Your task to perform on an android device: When is my next appointment? Image 0: 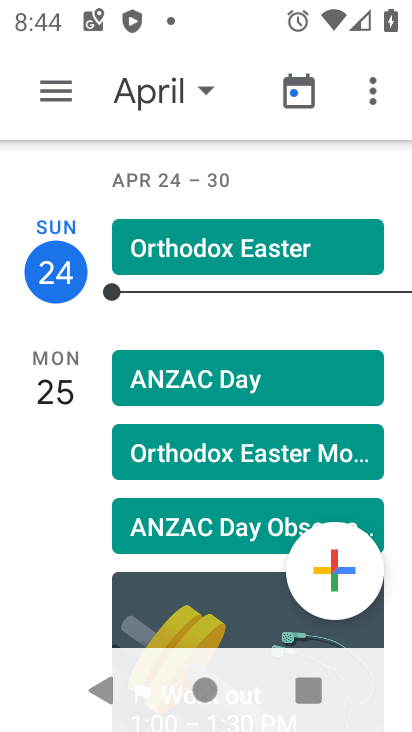
Step 0: press home button
Your task to perform on an android device: When is my next appointment? Image 1: 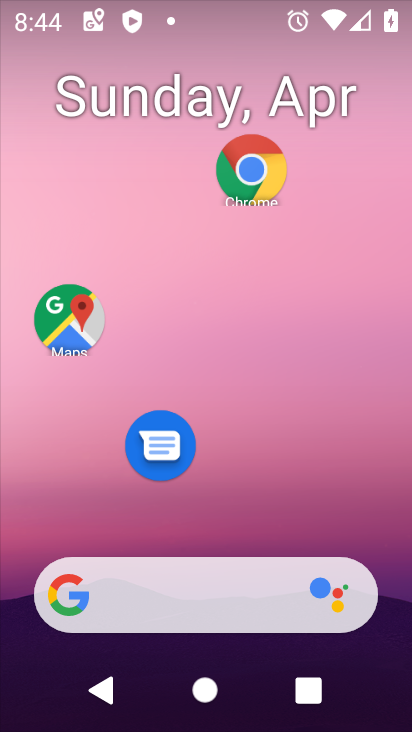
Step 1: drag from (279, 509) to (285, 38)
Your task to perform on an android device: When is my next appointment? Image 2: 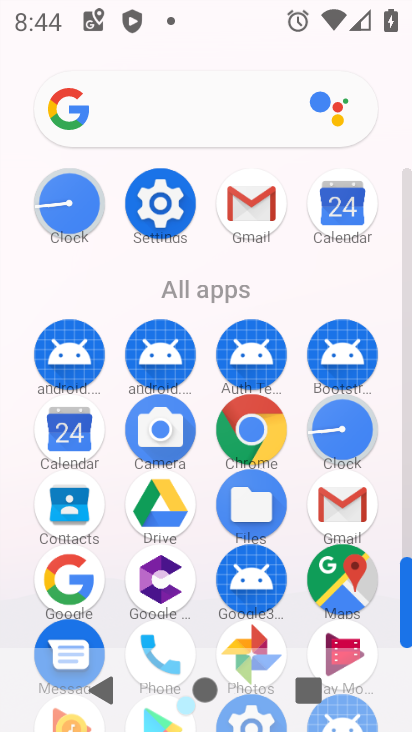
Step 2: click (67, 436)
Your task to perform on an android device: When is my next appointment? Image 3: 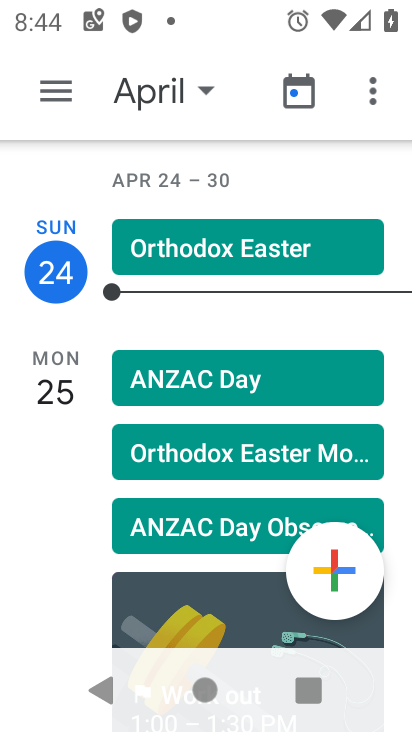
Step 3: click (197, 74)
Your task to perform on an android device: When is my next appointment? Image 4: 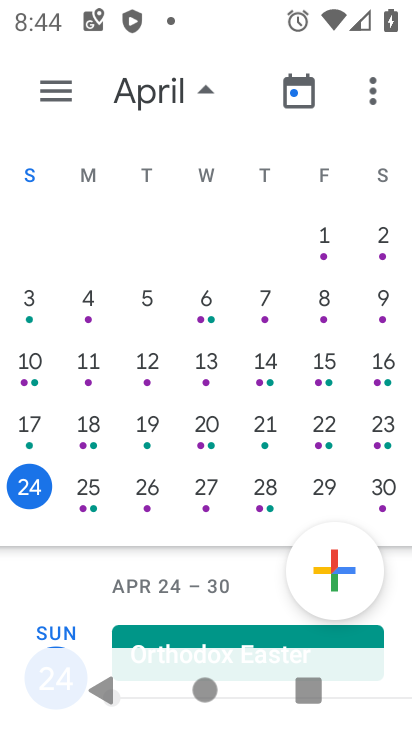
Step 4: click (137, 492)
Your task to perform on an android device: When is my next appointment? Image 5: 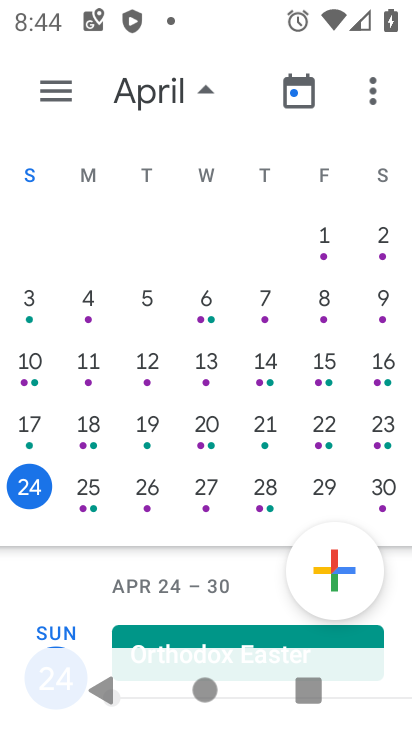
Step 5: click (152, 493)
Your task to perform on an android device: When is my next appointment? Image 6: 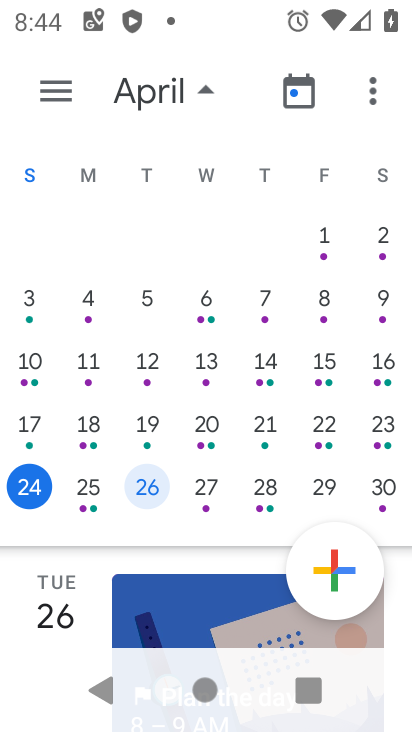
Step 6: task complete